Your task to perform on an android device: Open Android settings Image 0: 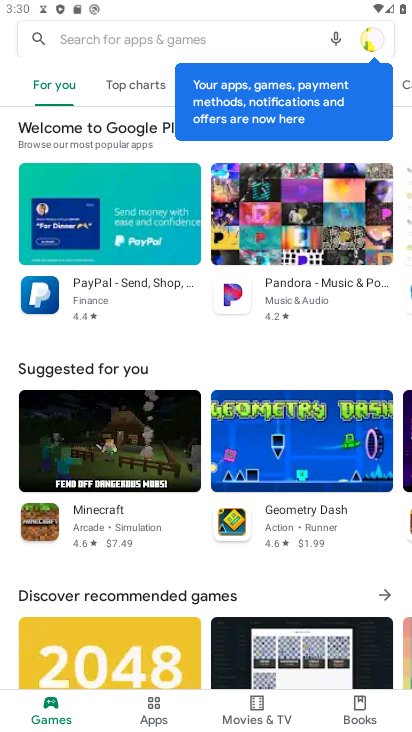
Step 0: press home button
Your task to perform on an android device: Open Android settings Image 1: 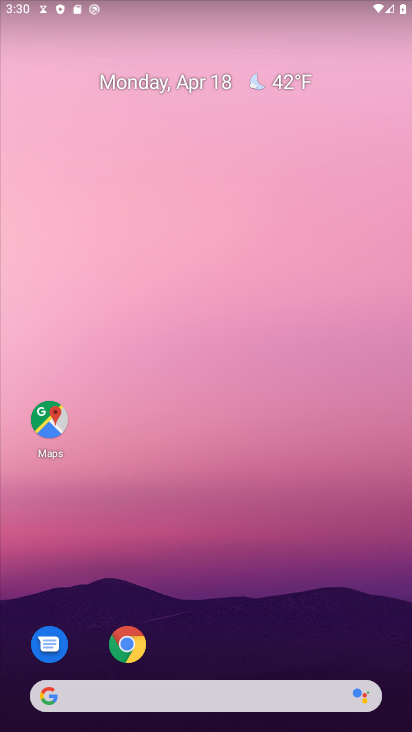
Step 1: drag from (252, 594) to (245, 150)
Your task to perform on an android device: Open Android settings Image 2: 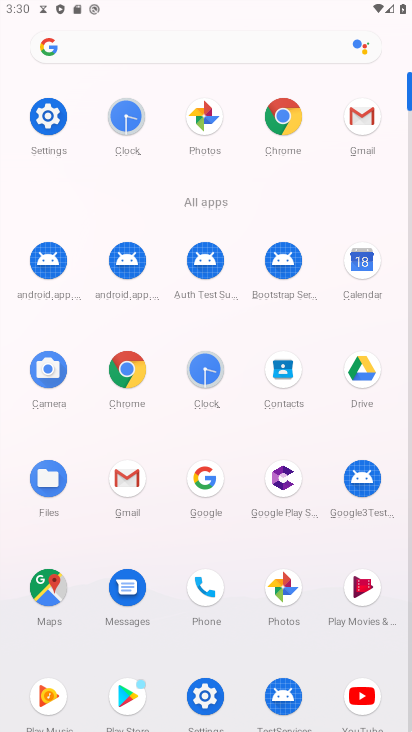
Step 2: click (52, 118)
Your task to perform on an android device: Open Android settings Image 3: 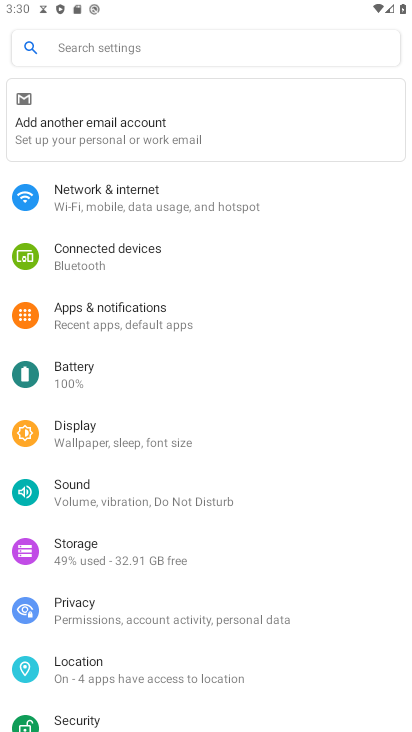
Step 3: drag from (227, 608) to (226, 129)
Your task to perform on an android device: Open Android settings Image 4: 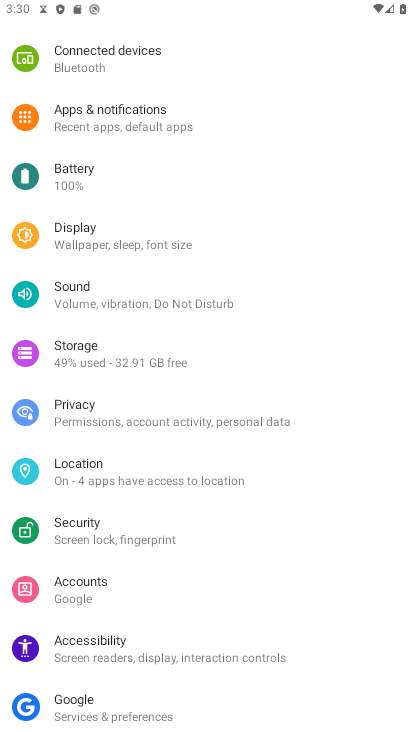
Step 4: drag from (185, 662) to (169, 126)
Your task to perform on an android device: Open Android settings Image 5: 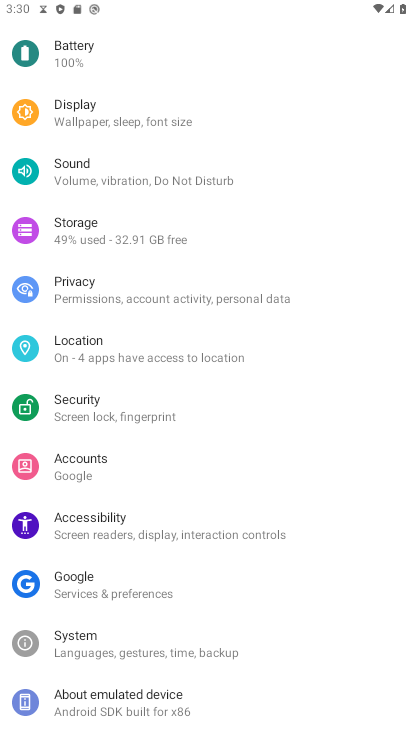
Step 5: click (158, 696)
Your task to perform on an android device: Open Android settings Image 6: 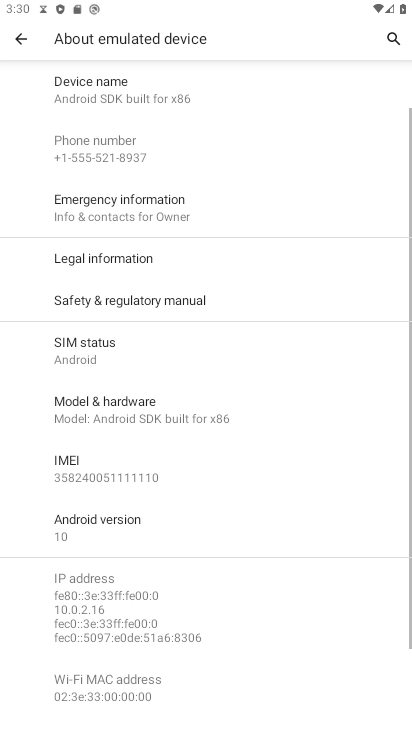
Step 6: drag from (201, 523) to (200, 267)
Your task to perform on an android device: Open Android settings Image 7: 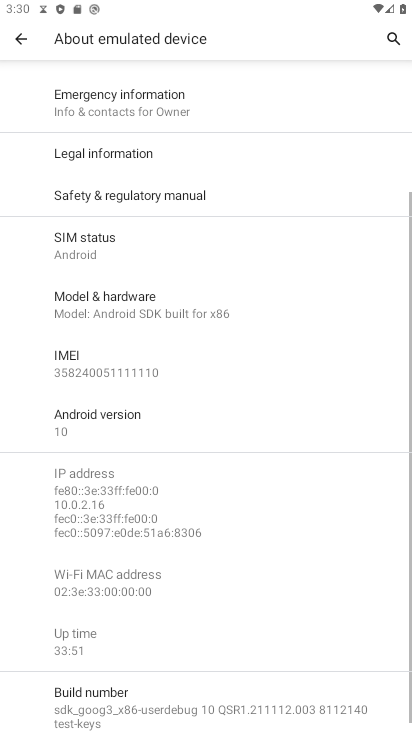
Step 7: drag from (244, 660) to (250, 255)
Your task to perform on an android device: Open Android settings Image 8: 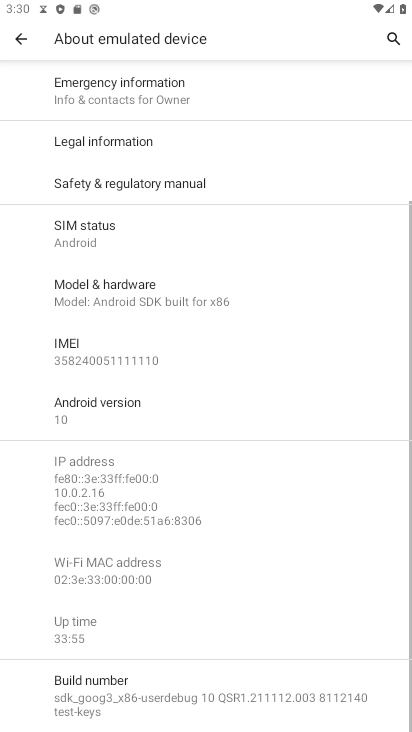
Step 8: click (133, 417)
Your task to perform on an android device: Open Android settings Image 9: 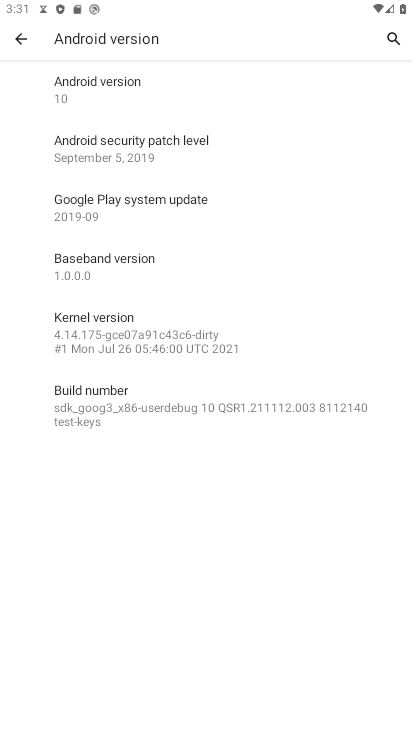
Step 9: task complete